Your task to perform on an android device: add a label to a message in the gmail app Image 0: 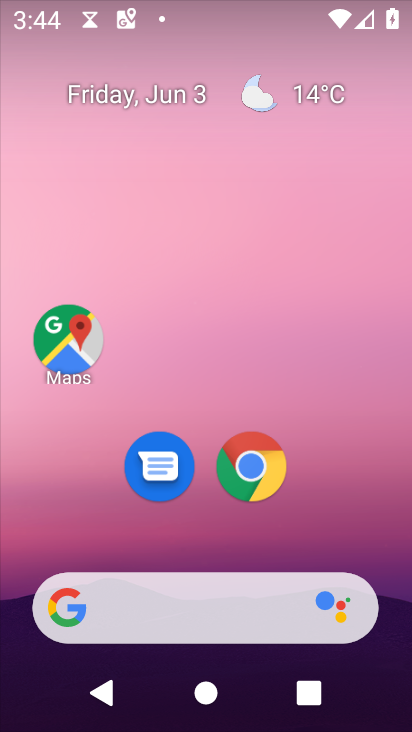
Step 0: drag from (358, 505) to (207, 0)
Your task to perform on an android device: add a label to a message in the gmail app Image 1: 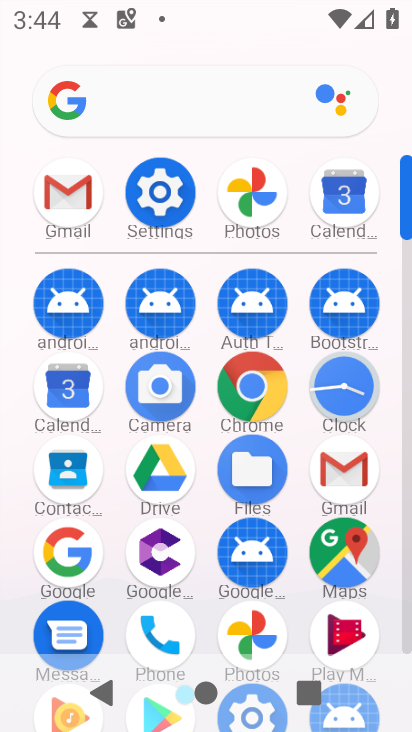
Step 1: click (343, 468)
Your task to perform on an android device: add a label to a message in the gmail app Image 2: 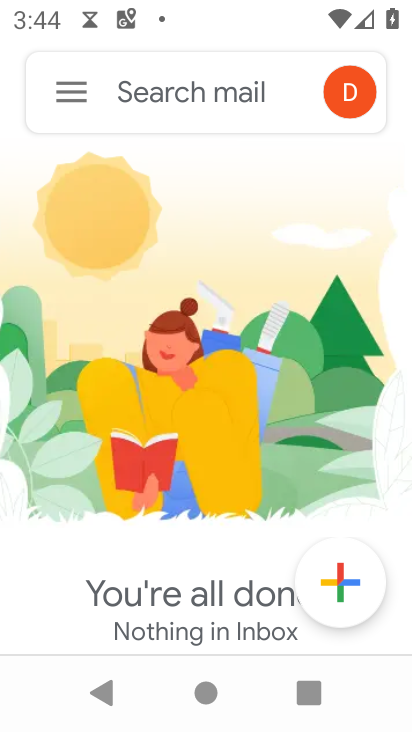
Step 2: click (74, 95)
Your task to perform on an android device: add a label to a message in the gmail app Image 3: 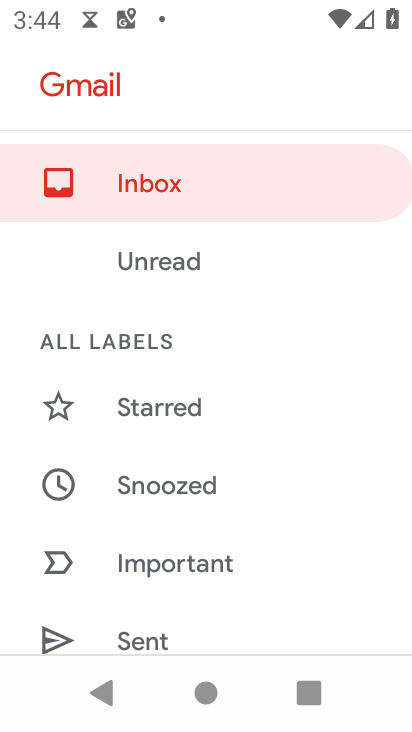
Step 3: drag from (194, 630) to (189, 221)
Your task to perform on an android device: add a label to a message in the gmail app Image 4: 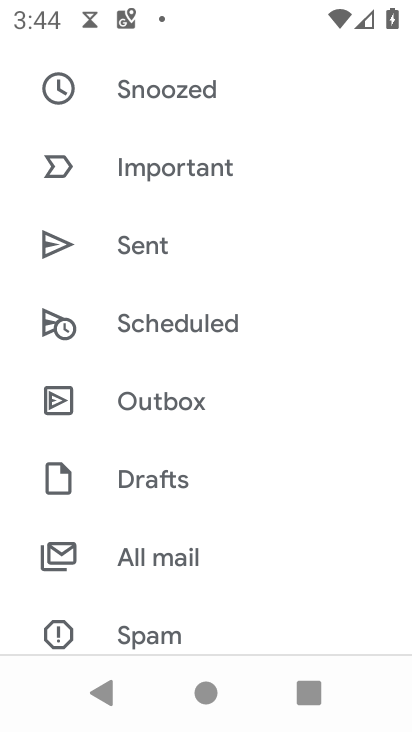
Step 4: click (157, 552)
Your task to perform on an android device: add a label to a message in the gmail app Image 5: 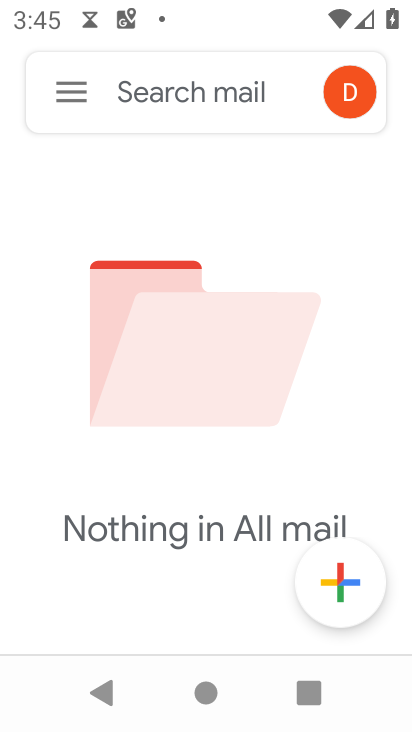
Step 5: task complete